Your task to perform on an android device: turn on translation in the chrome app Image 0: 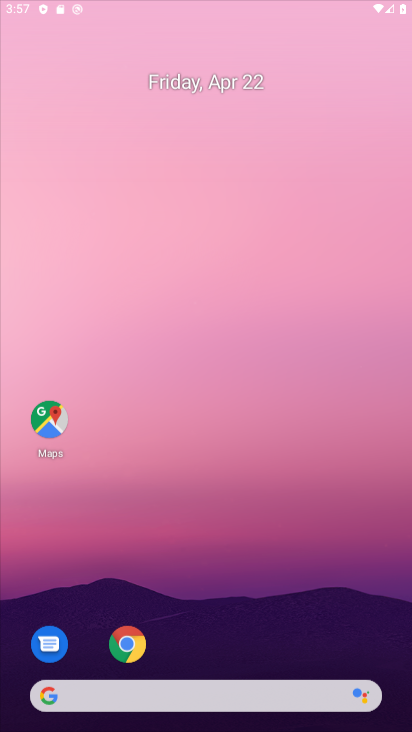
Step 0: click (315, 155)
Your task to perform on an android device: turn on translation in the chrome app Image 1: 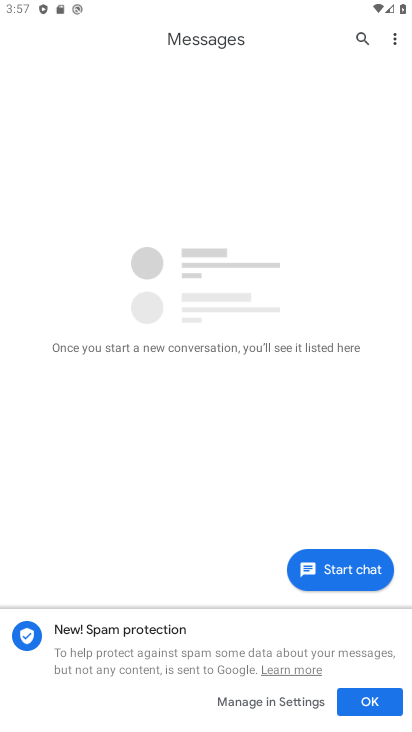
Step 1: drag from (260, 647) to (312, 259)
Your task to perform on an android device: turn on translation in the chrome app Image 2: 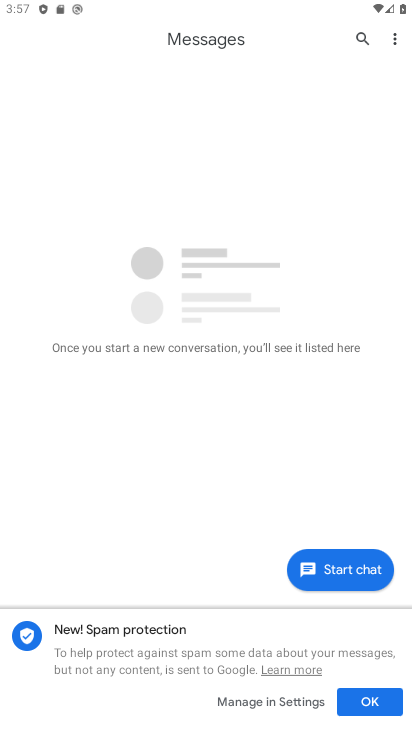
Step 2: press home button
Your task to perform on an android device: turn on translation in the chrome app Image 3: 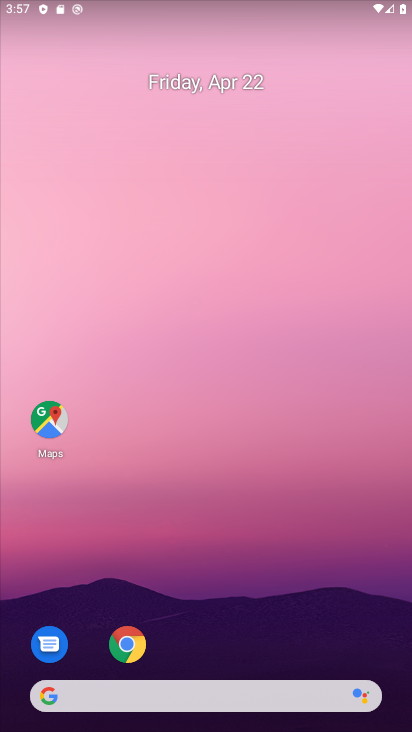
Step 3: drag from (193, 718) to (290, 206)
Your task to perform on an android device: turn on translation in the chrome app Image 4: 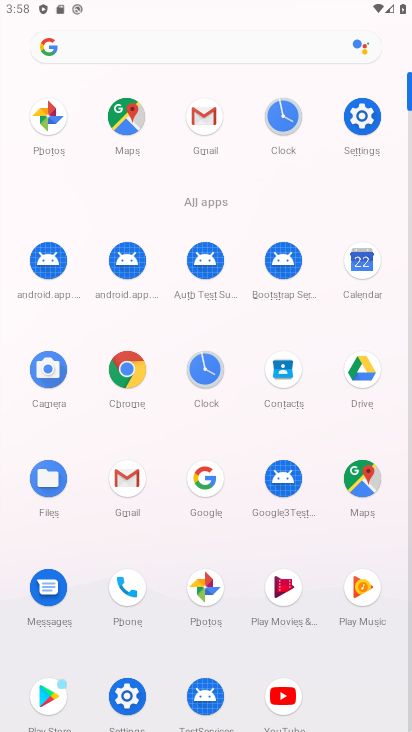
Step 4: click (130, 356)
Your task to perform on an android device: turn on translation in the chrome app Image 5: 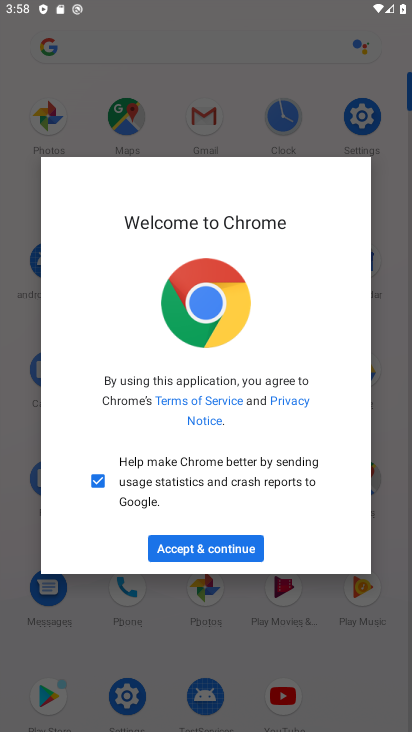
Step 5: click (193, 535)
Your task to perform on an android device: turn on translation in the chrome app Image 6: 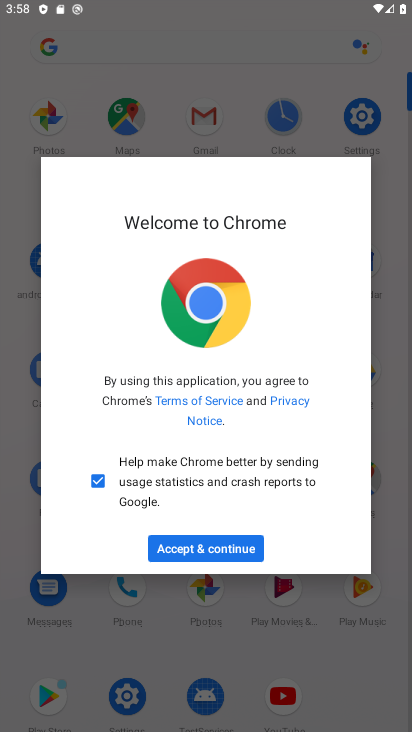
Step 6: click (175, 557)
Your task to perform on an android device: turn on translation in the chrome app Image 7: 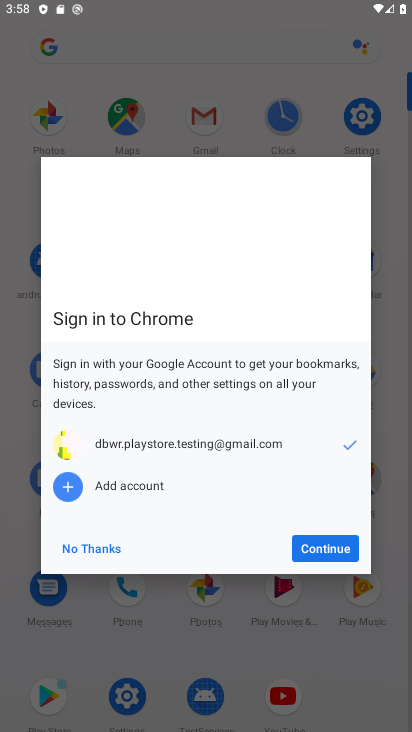
Step 7: click (307, 552)
Your task to perform on an android device: turn on translation in the chrome app Image 8: 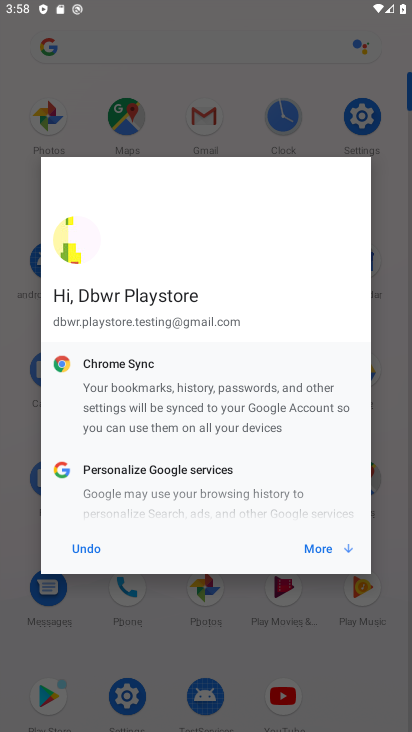
Step 8: click (344, 550)
Your task to perform on an android device: turn on translation in the chrome app Image 9: 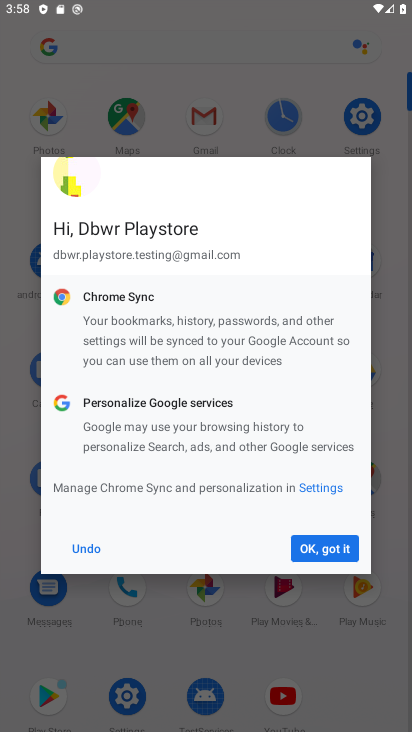
Step 9: click (344, 550)
Your task to perform on an android device: turn on translation in the chrome app Image 10: 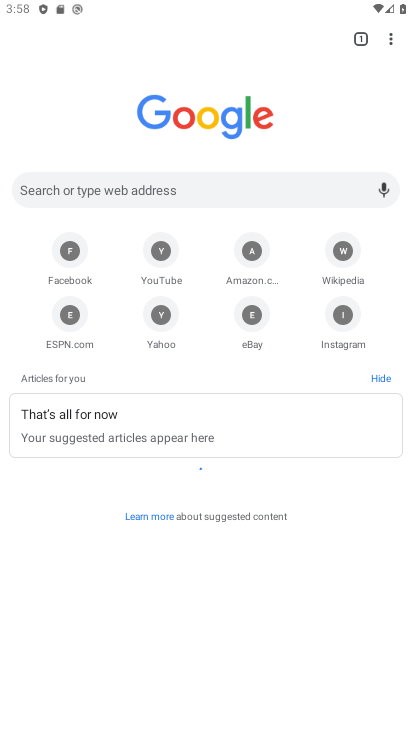
Step 10: click (388, 45)
Your task to perform on an android device: turn on translation in the chrome app Image 11: 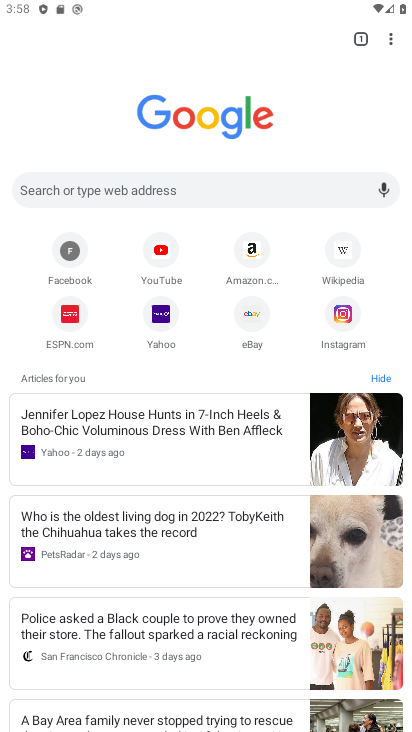
Step 11: click (393, 41)
Your task to perform on an android device: turn on translation in the chrome app Image 12: 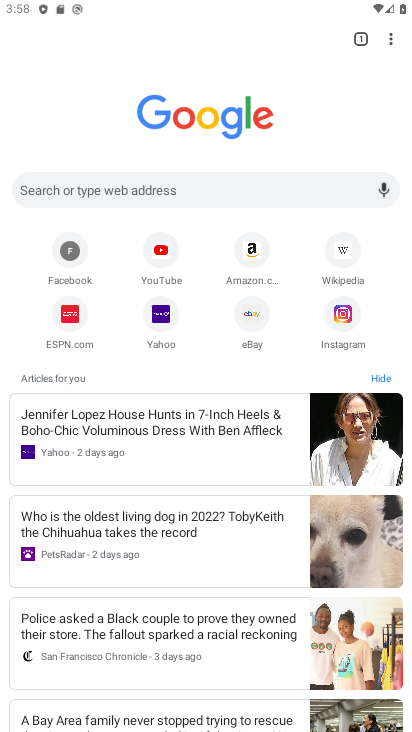
Step 12: click (390, 48)
Your task to perform on an android device: turn on translation in the chrome app Image 13: 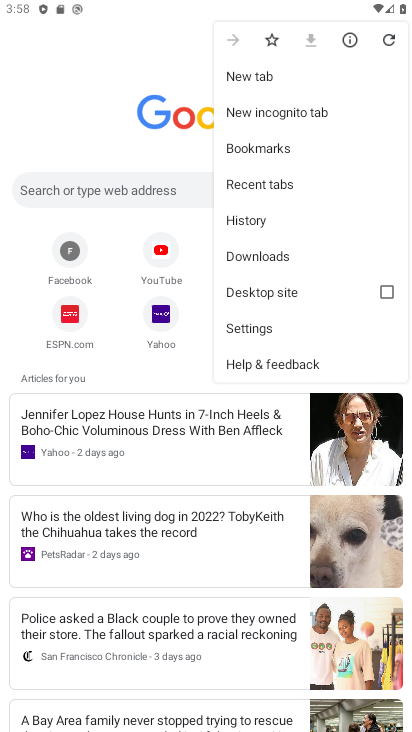
Step 13: click (255, 336)
Your task to perform on an android device: turn on translation in the chrome app Image 14: 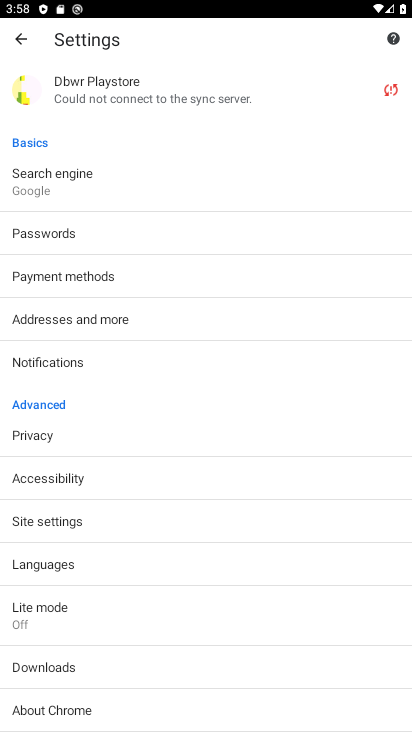
Step 14: click (63, 566)
Your task to perform on an android device: turn on translation in the chrome app Image 15: 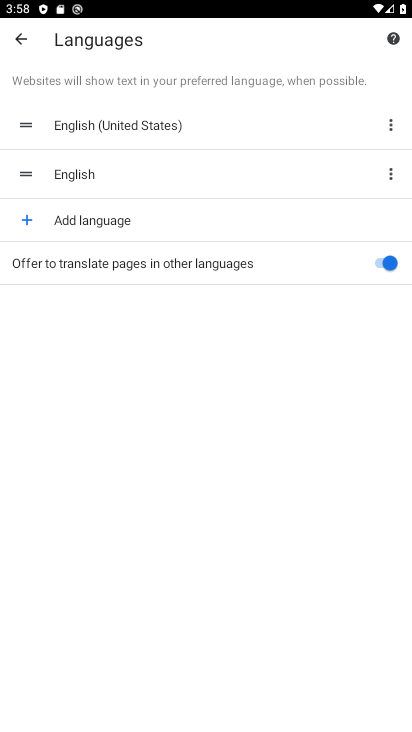
Step 15: click (243, 260)
Your task to perform on an android device: turn on translation in the chrome app Image 16: 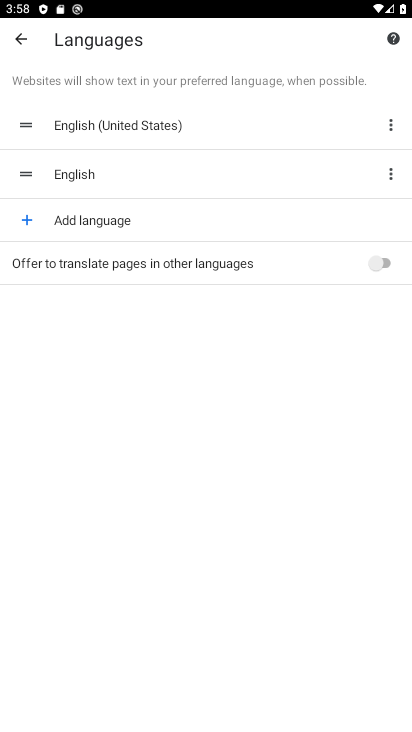
Step 16: click (260, 253)
Your task to perform on an android device: turn on translation in the chrome app Image 17: 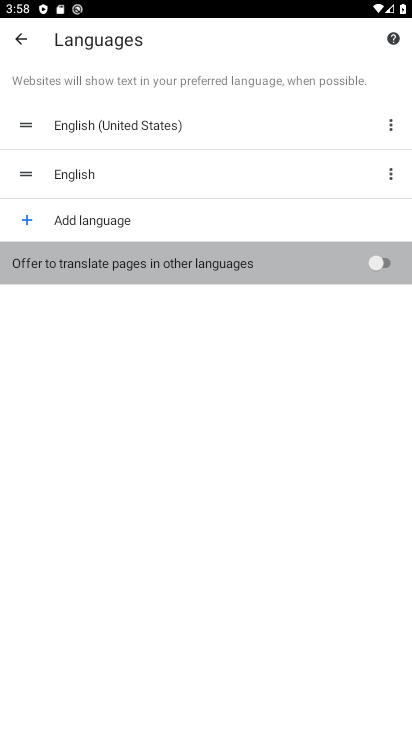
Step 17: task complete